Your task to perform on an android device: toggle sleep mode Image 0: 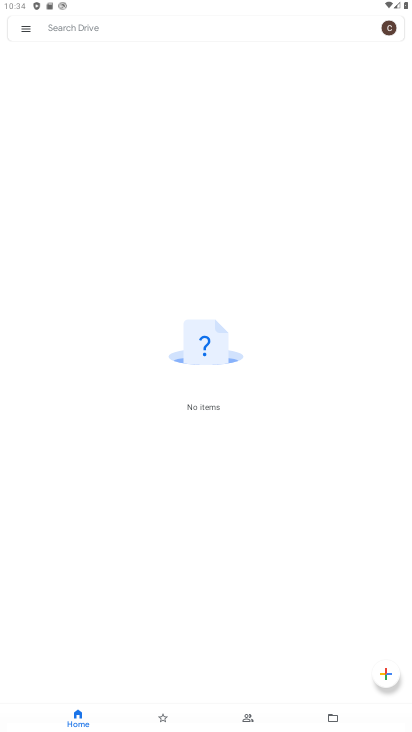
Step 0: press home button
Your task to perform on an android device: toggle sleep mode Image 1: 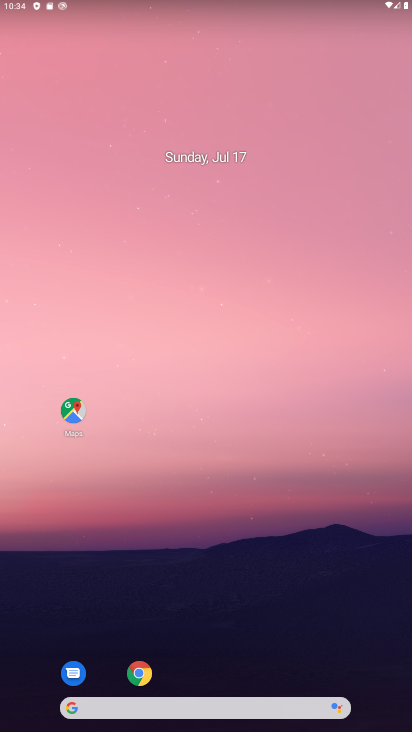
Step 1: drag from (246, 677) to (342, 158)
Your task to perform on an android device: toggle sleep mode Image 2: 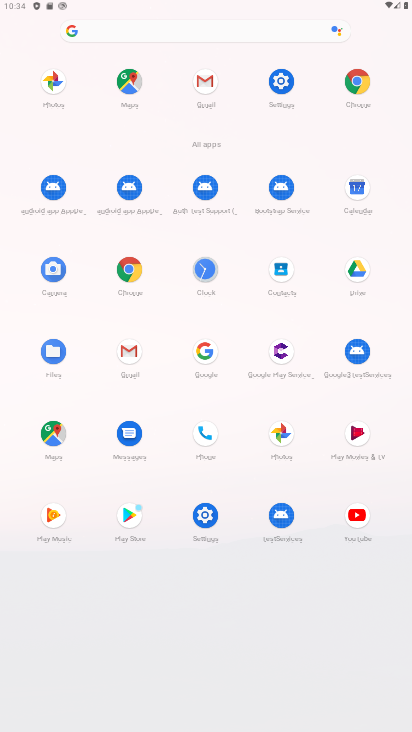
Step 2: click (208, 523)
Your task to perform on an android device: toggle sleep mode Image 3: 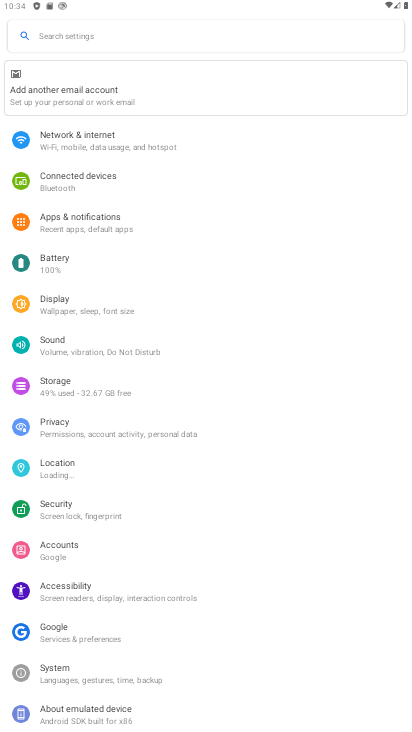
Step 3: click (68, 300)
Your task to perform on an android device: toggle sleep mode Image 4: 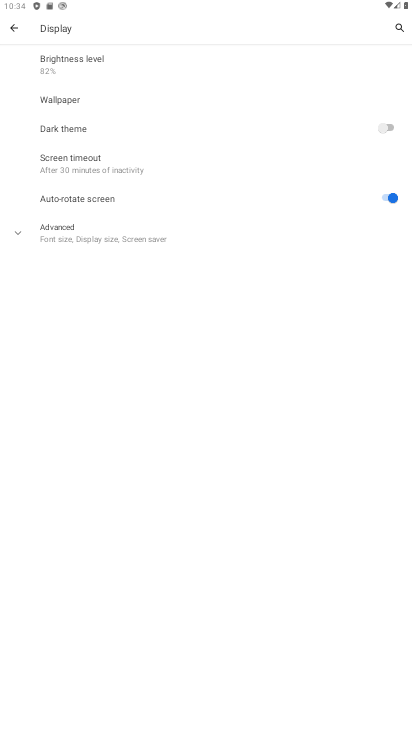
Step 4: click (111, 237)
Your task to perform on an android device: toggle sleep mode Image 5: 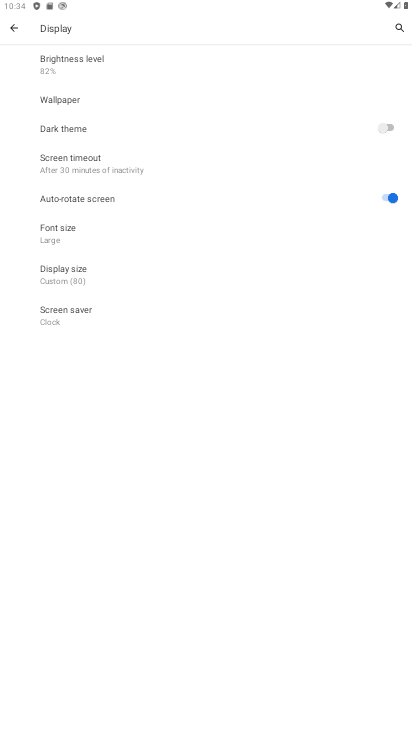
Step 5: task complete